Your task to perform on an android device: Open Maps and search for coffee Image 0: 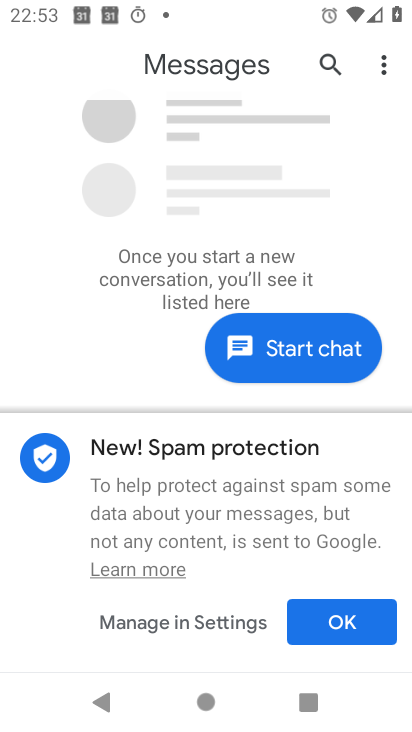
Step 0: press home button
Your task to perform on an android device: Open Maps and search for coffee Image 1: 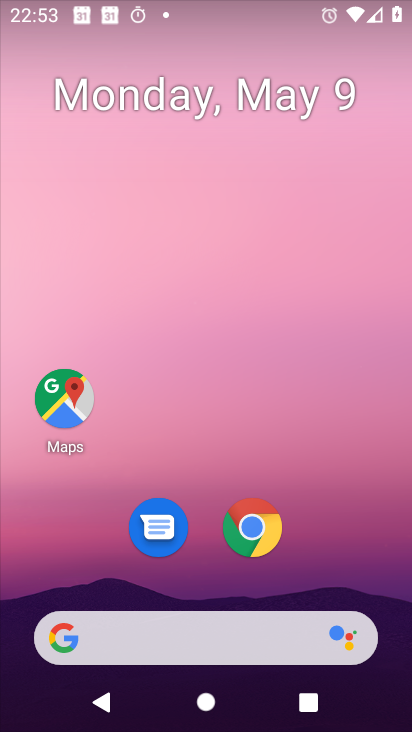
Step 1: click (62, 401)
Your task to perform on an android device: Open Maps and search for coffee Image 2: 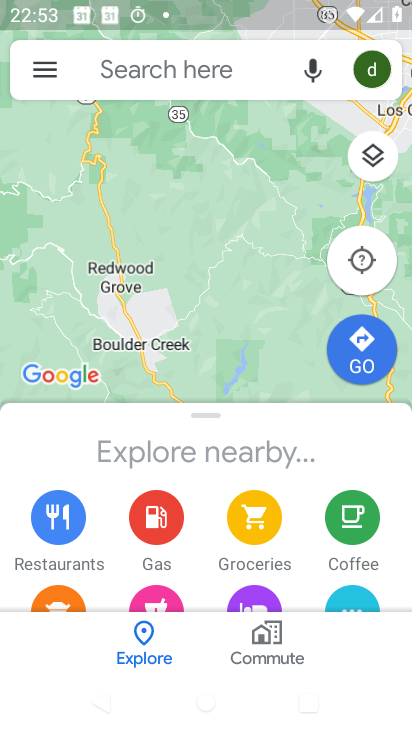
Step 2: click (205, 64)
Your task to perform on an android device: Open Maps and search for coffee Image 3: 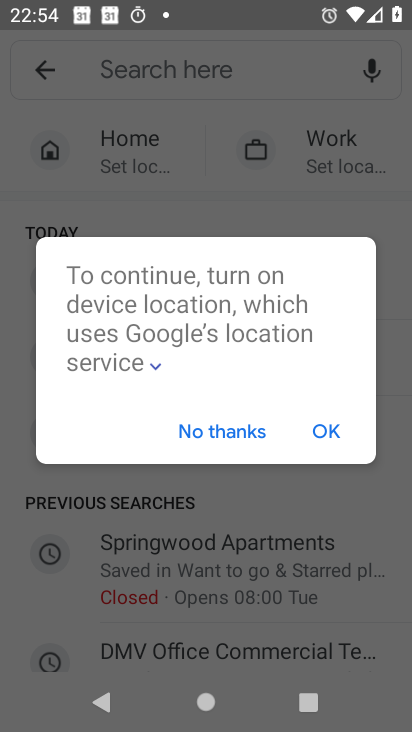
Step 3: click (259, 430)
Your task to perform on an android device: Open Maps and search for coffee Image 4: 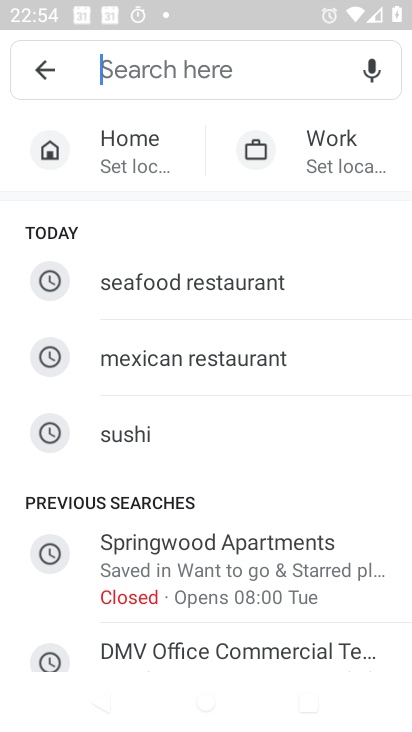
Step 4: type "coffee"
Your task to perform on an android device: Open Maps and search for coffee Image 5: 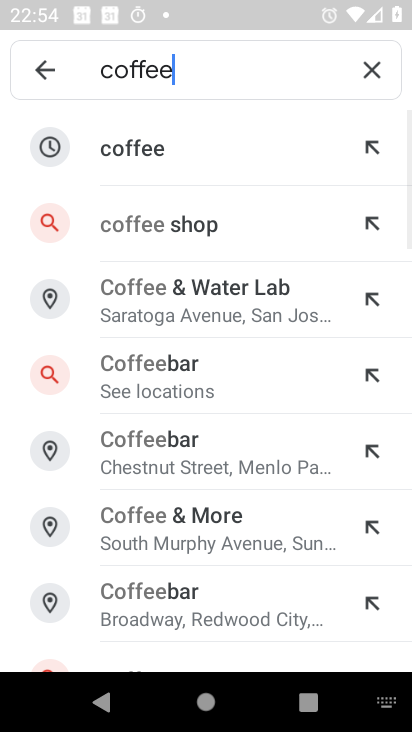
Step 5: click (163, 155)
Your task to perform on an android device: Open Maps and search for coffee Image 6: 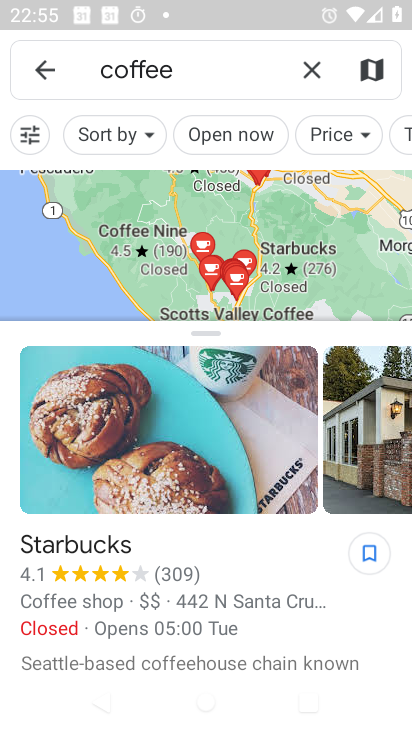
Step 6: task complete